Your task to perform on an android device: Do I have any events today? Image 0: 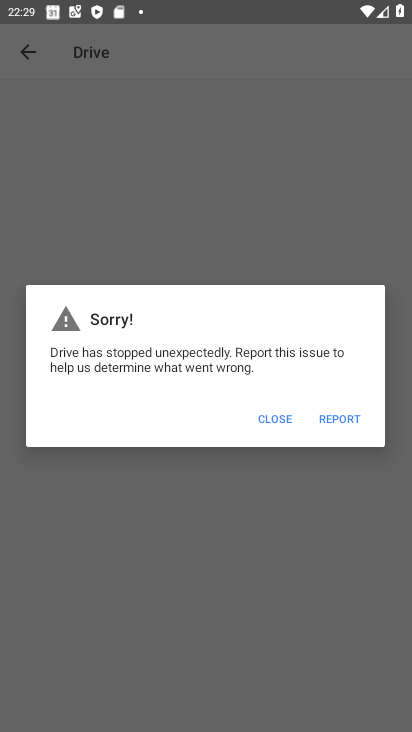
Step 0: press home button
Your task to perform on an android device: Do I have any events today? Image 1: 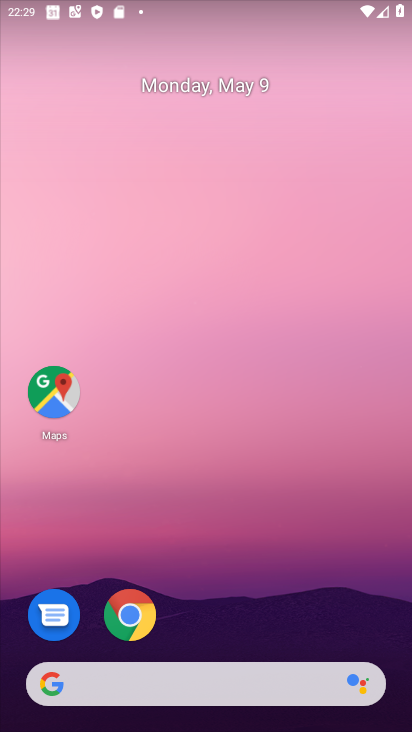
Step 1: drag from (180, 630) to (200, 200)
Your task to perform on an android device: Do I have any events today? Image 2: 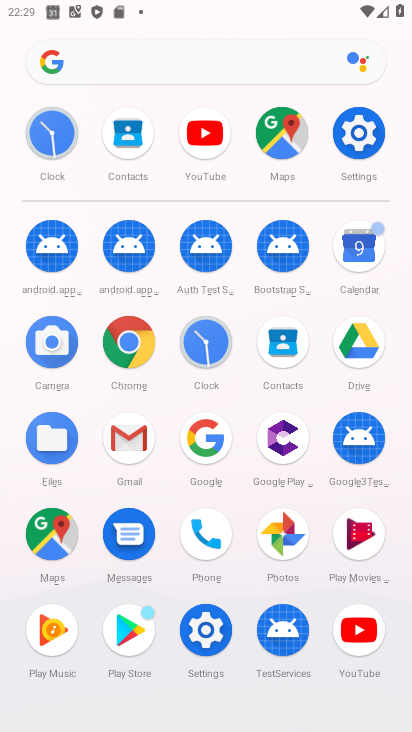
Step 2: click (358, 255)
Your task to perform on an android device: Do I have any events today? Image 3: 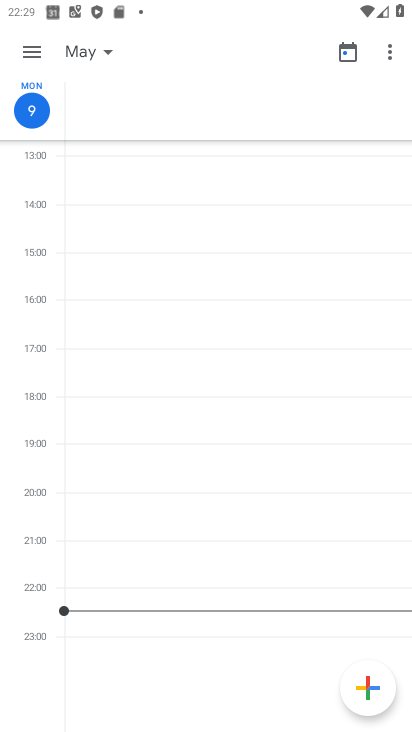
Step 3: click (82, 53)
Your task to perform on an android device: Do I have any events today? Image 4: 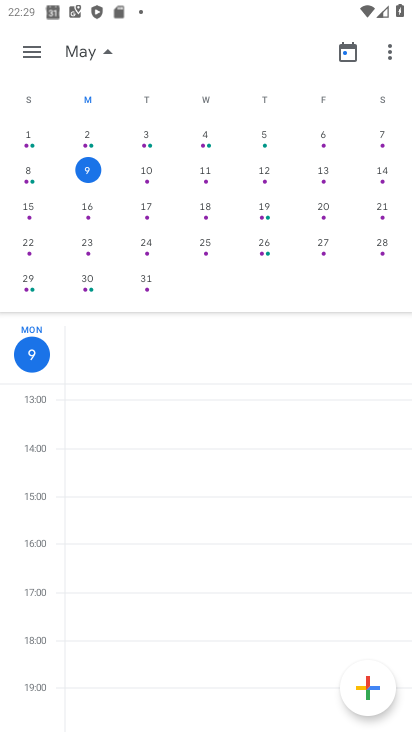
Step 4: click (131, 178)
Your task to perform on an android device: Do I have any events today? Image 5: 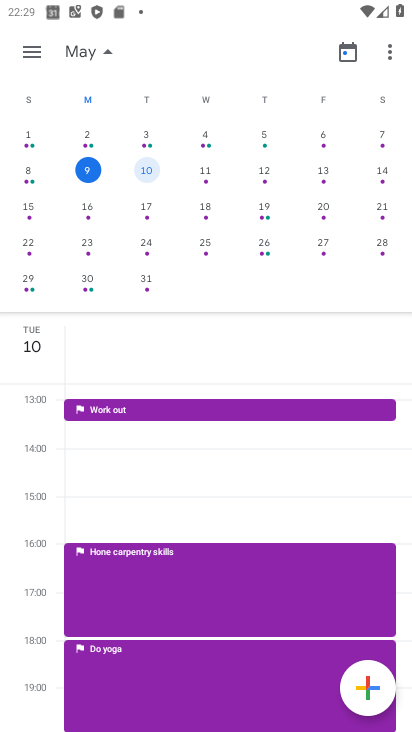
Step 5: task complete